Your task to perform on an android device: move a message to another label in the gmail app Image 0: 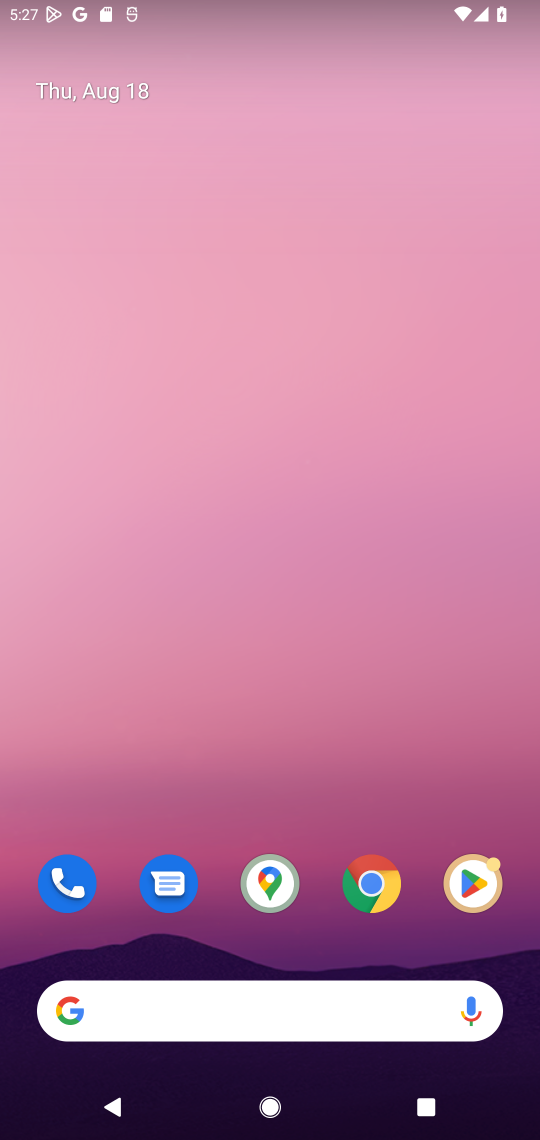
Step 0: drag from (310, 926) to (219, 126)
Your task to perform on an android device: move a message to another label in the gmail app Image 1: 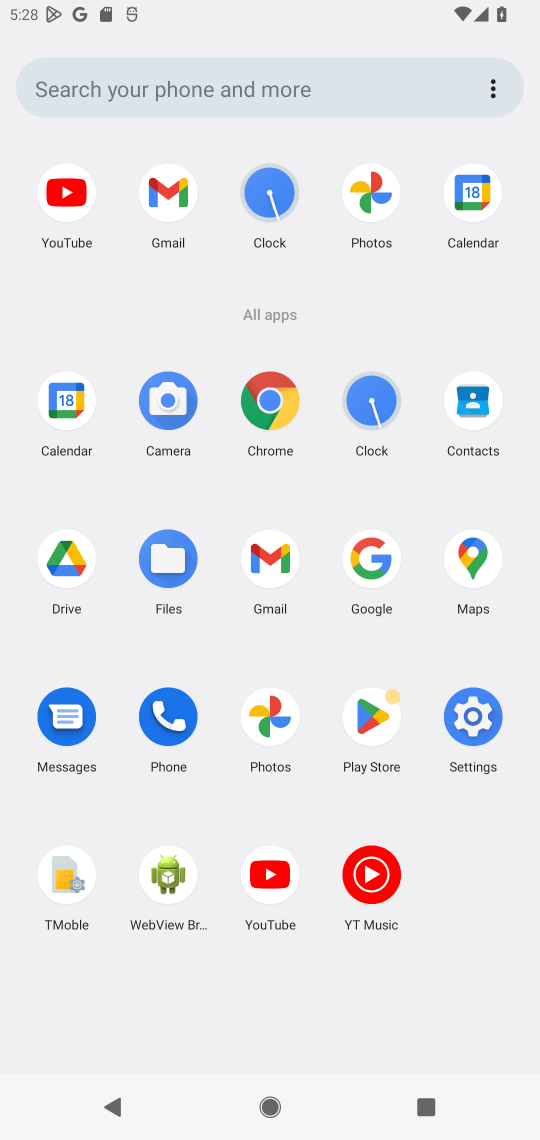
Step 1: click (270, 555)
Your task to perform on an android device: move a message to another label in the gmail app Image 2: 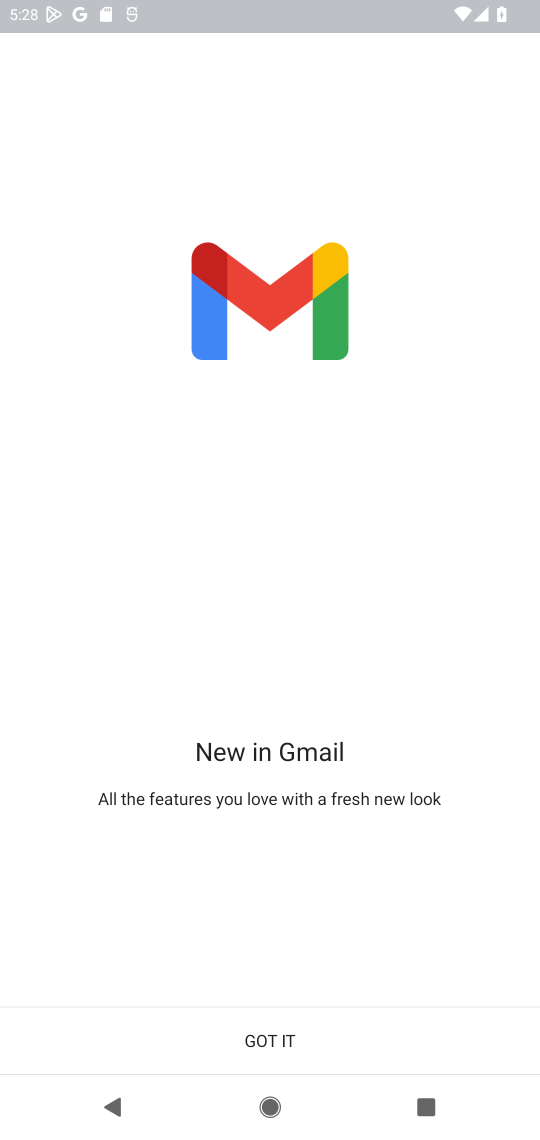
Step 2: click (259, 1041)
Your task to perform on an android device: move a message to another label in the gmail app Image 3: 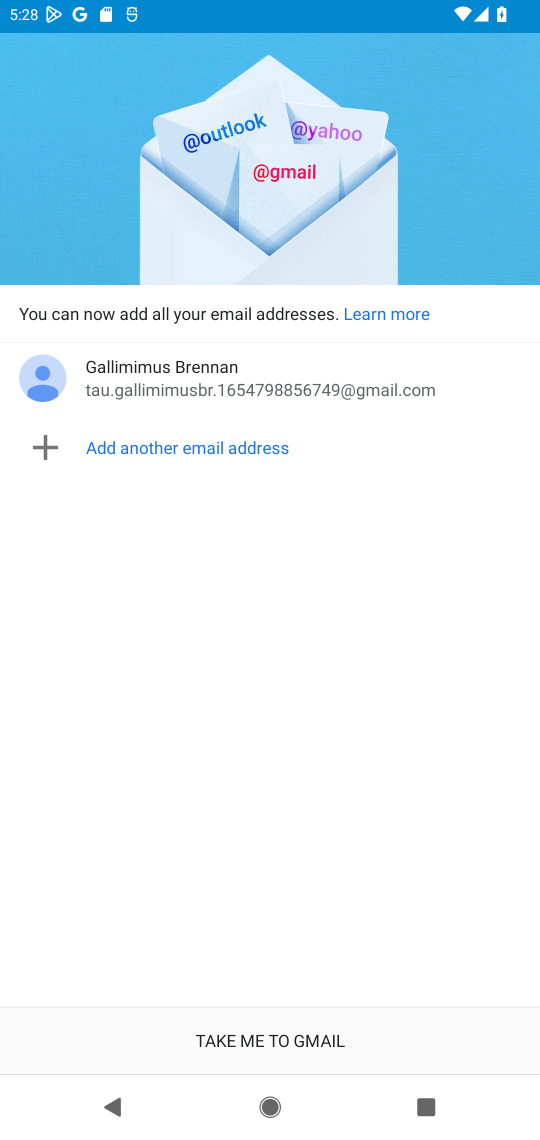
Step 3: click (251, 1039)
Your task to perform on an android device: move a message to another label in the gmail app Image 4: 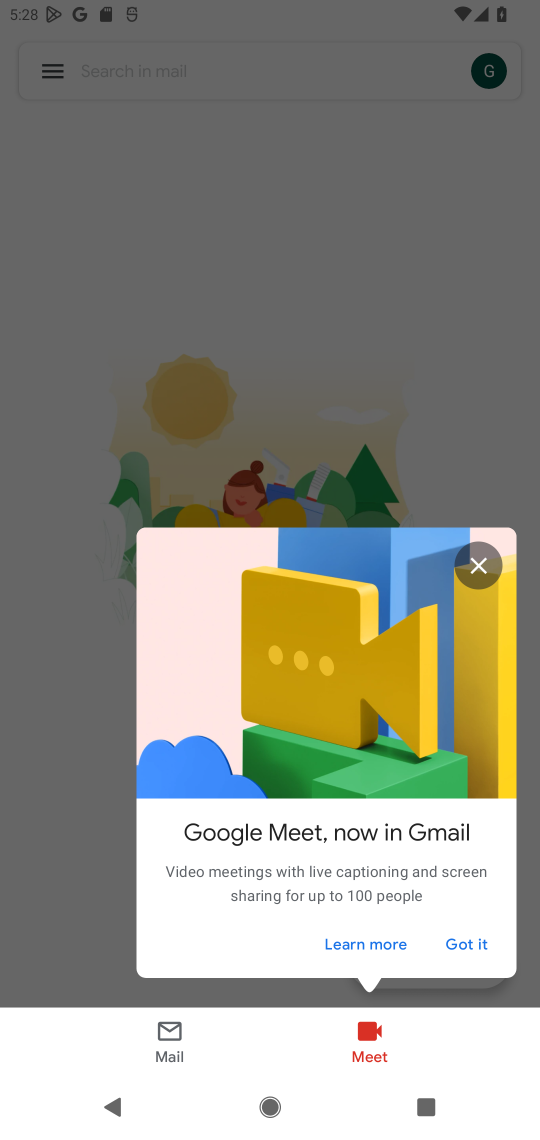
Step 4: click (489, 568)
Your task to perform on an android device: move a message to another label in the gmail app Image 5: 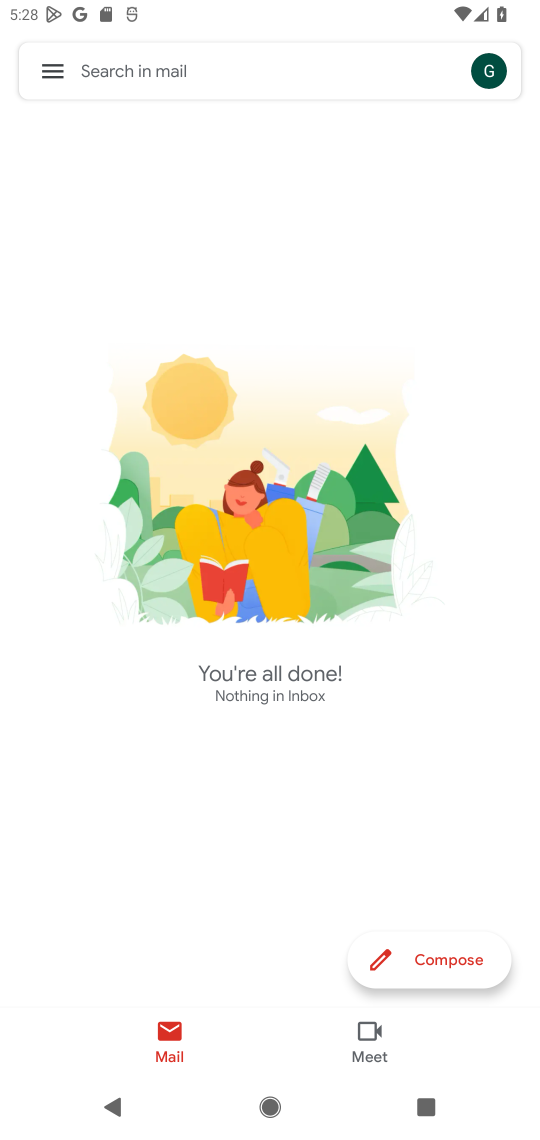
Step 5: task complete